Your task to perform on an android device: Open the map Image 0: 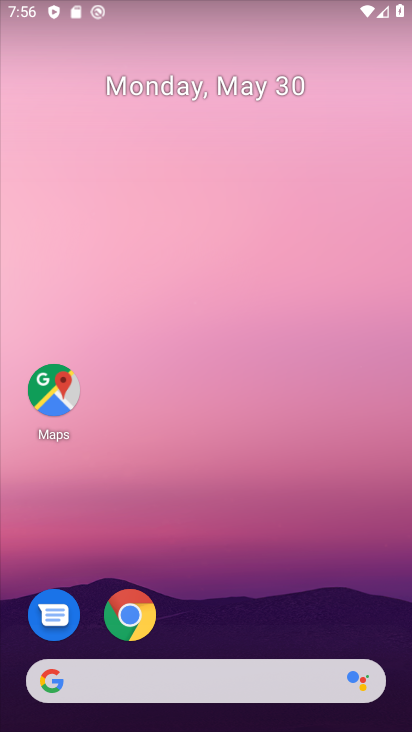
Step 0: press home button
Your task to perform on an android device: Open the map Image 1: 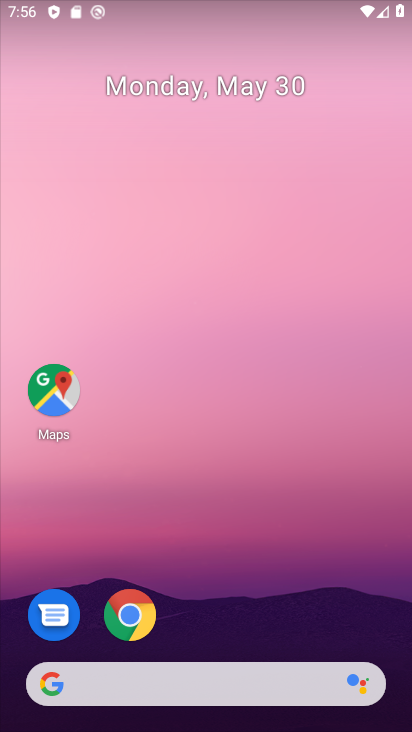
Step 1: click (55, 387)
Your task to perform on an android device: Open the map Image 2: 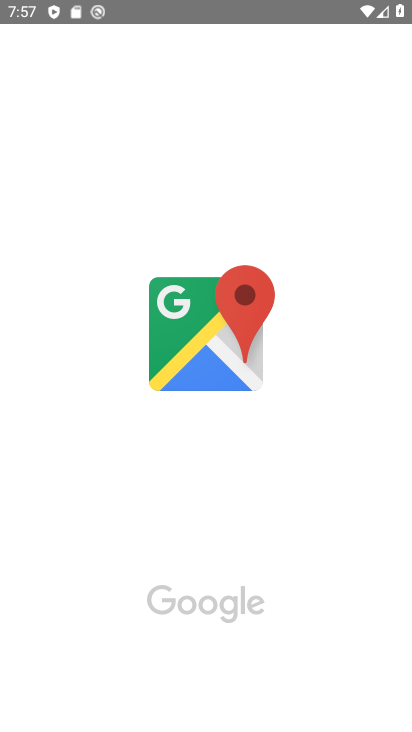
Step 2: task complete